Your task to perform on an android device: turn on priority inbox in the gmail app Image 0: 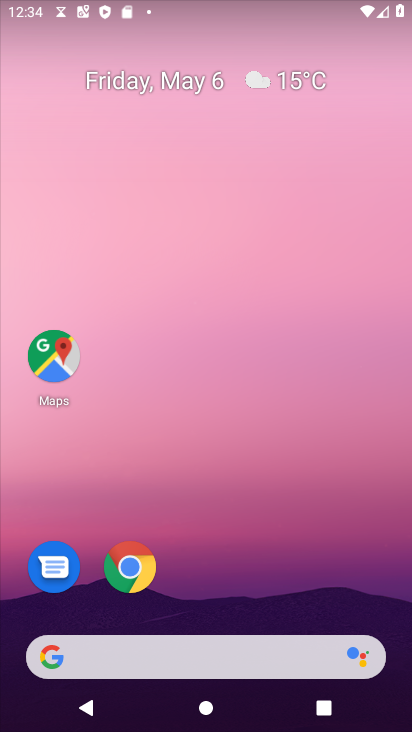
Step 0: drag from (292, 384) to (285, 94)
Your task to perform on an android device: turn on priority inbox in the gmail app Image 1: 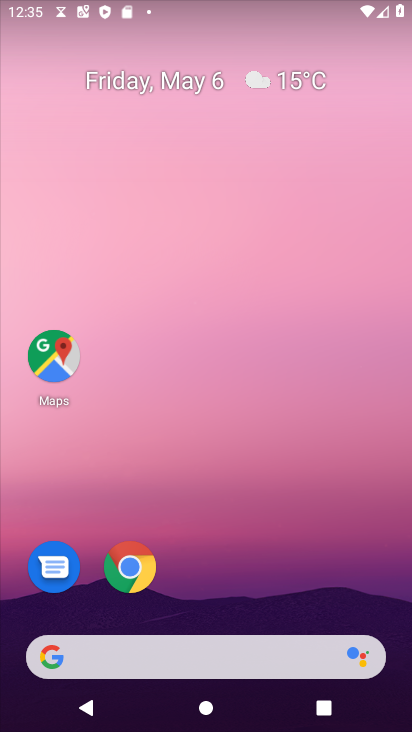
Step 1: drag from (319, 497) to (271, 89)
Your task to perform on an android device: turn on priority inbox in the gmail app Image 2: 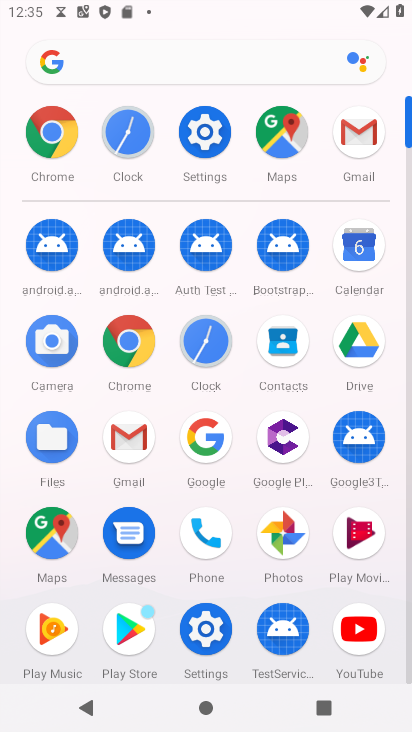
Step 2: click (358, 123)
Your task to perform on an android device: turn on priority inbox in the gmail app Image 3: 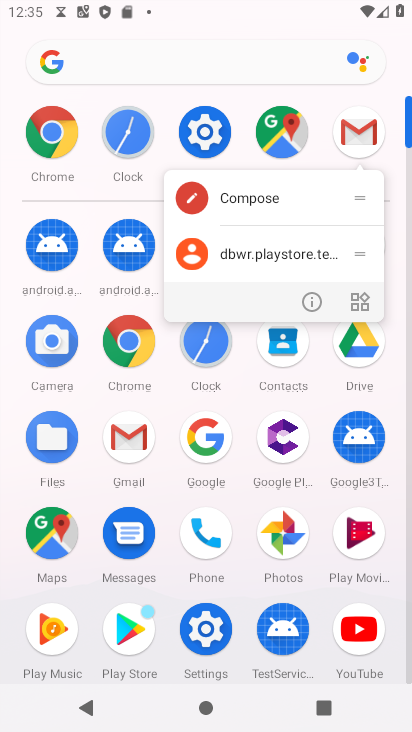
Step 3: click (349, 143)
Your task to perform on an android device: turn on priority inbox in the gmail app Image 4: 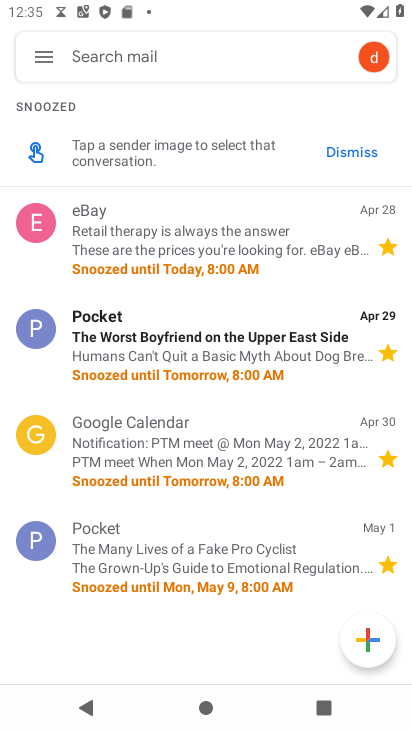
Step 4: click (43, 37)
Your task to perform on an android device: turn on priority inbox in the gmail app Image 5: 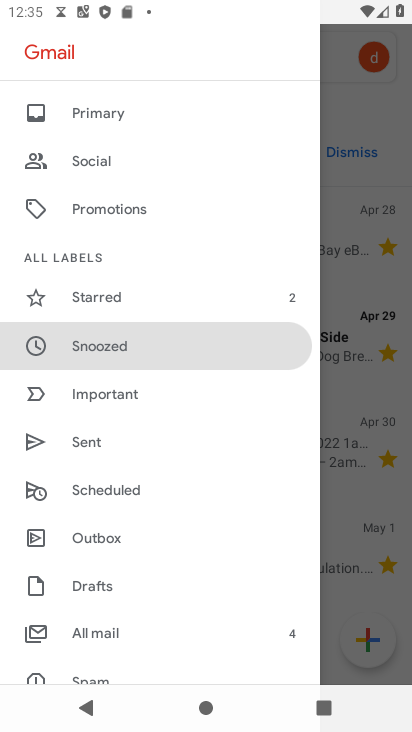
Step 5: drag from (159, 591) to (261, 136)
Your task to perform on an android device: turn on priority inbox in the gmail app Image 6: 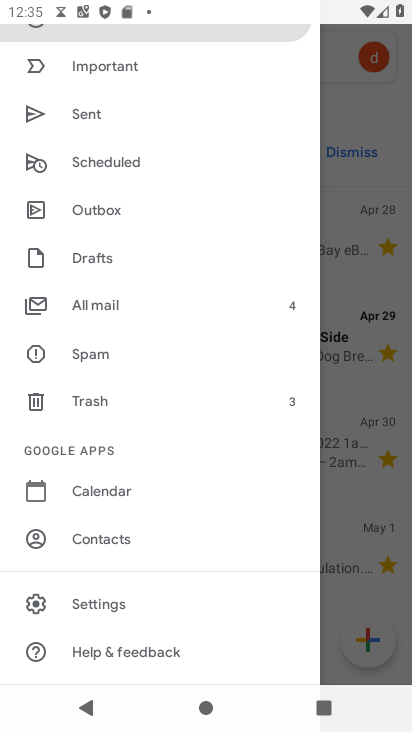
Step 6: click (104, 596)
Your task to perform on an android device: turn on priority inbox in the gmail app Image 7: 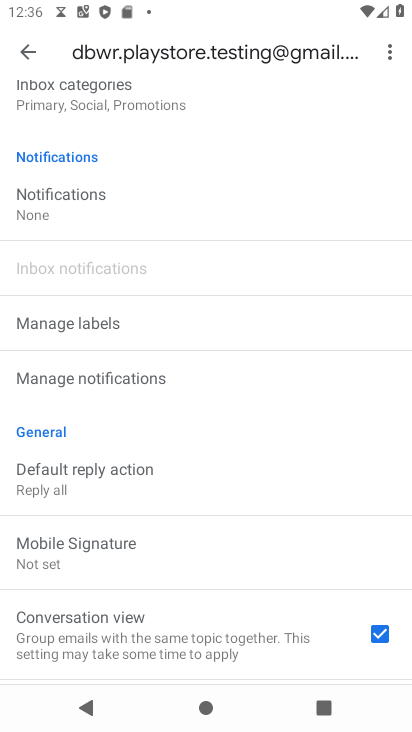
Step 7: drag from (133, 244) to (144, 549)
Your task to perform on an android device: turn on priority inbox in the gmail app Image 8: 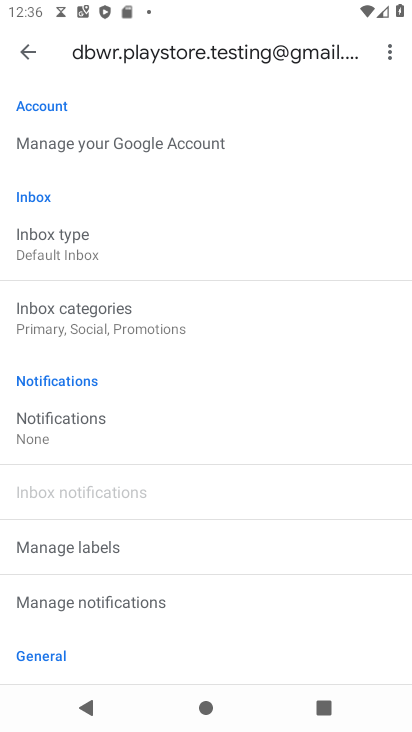
Step 8: click (72, 255)
Your task to perform on an android device: turn on priority inbox in the gmail app Image 9: 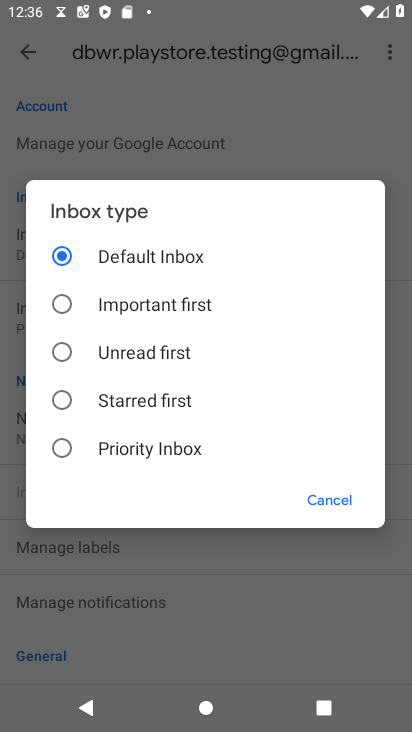
Step 9: click (101, 445)
Your task to perform on an android device: turn on priority inbox in the gmail app Image 10: 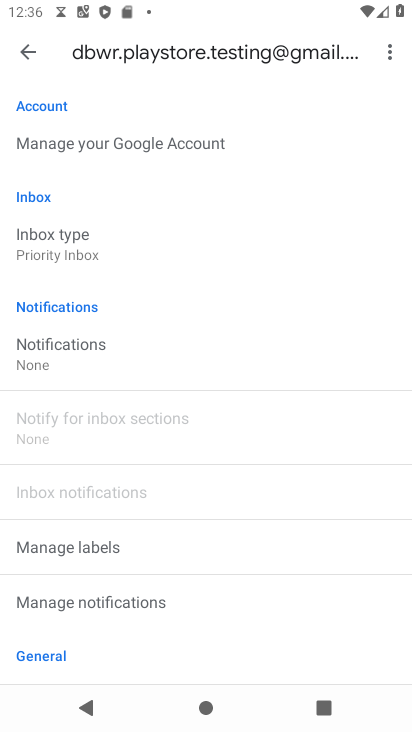
Step 10: task complete